Your task to perform on an android device: Do I have any events today? Image 0: 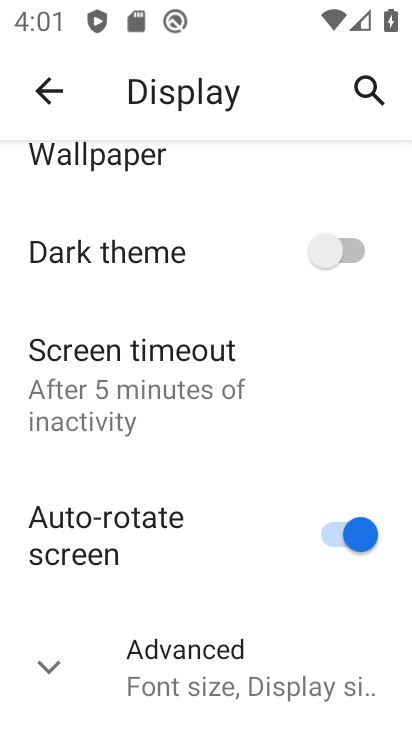
Step 0: press home button
Your task to perform on an android device: Do I have any events today? Image 1: 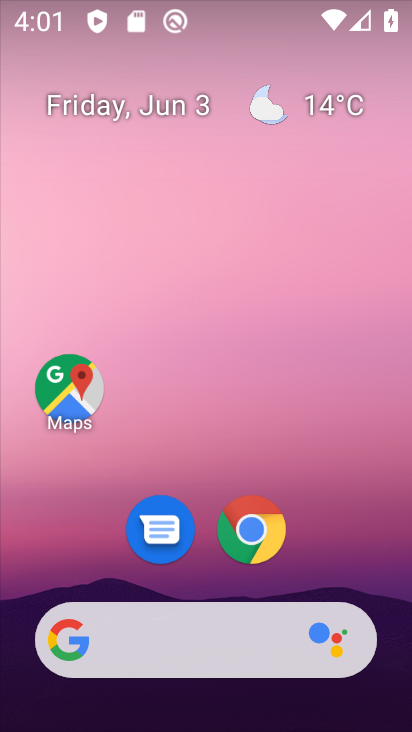
Step 1: drag from (369, 569) to (408, 65)
Your task to perform on an android device: Do I have any events today? Image 2: 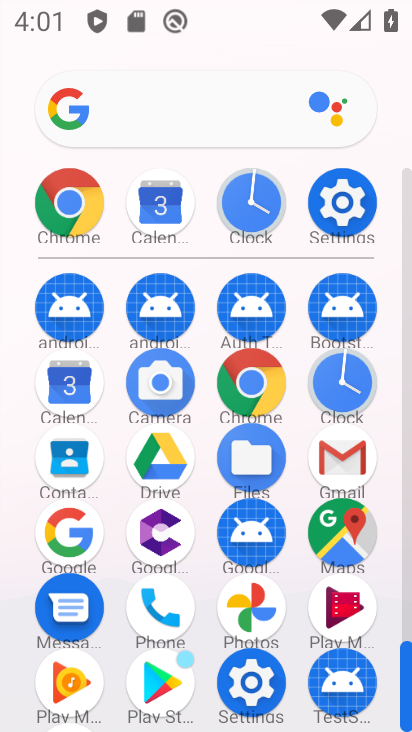
Step 2: click (54, 385)
Your task to perform on an android device: Do I have any events today? Image 3: 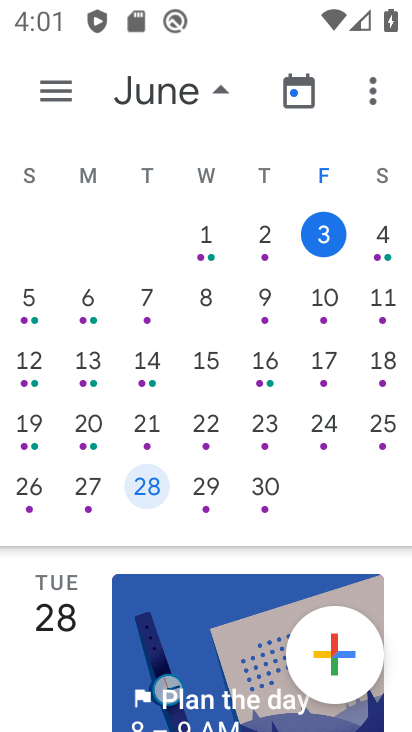
Step 3: task complete